Your task to perform on an android device: turn off location history Image 0: 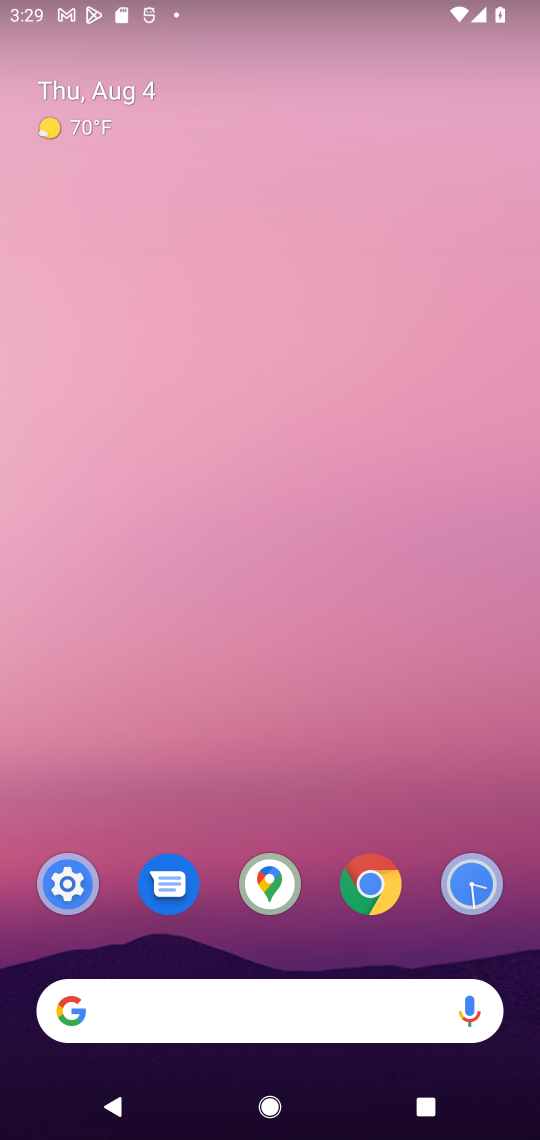
Step 0: click (76, 896)
Your task to perform on an android device: turn off location history Image 1: 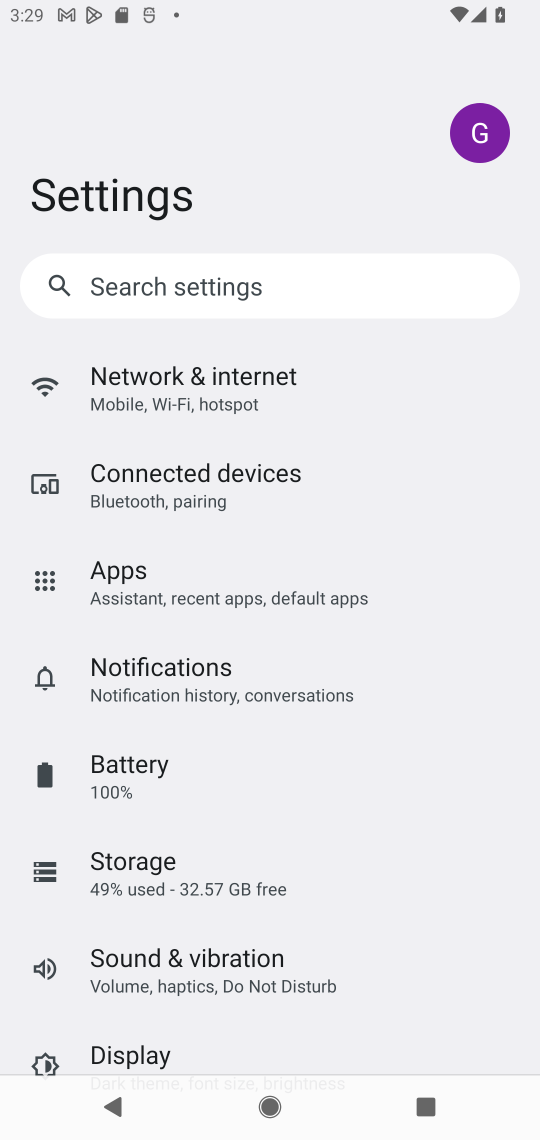
Step 1: task complete